Your task to perform on an android device: see tabs open on other devices in the chrome app Image 0: 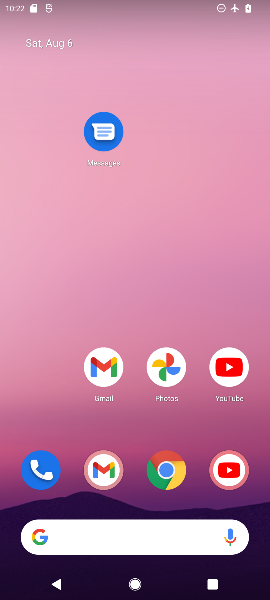
Step 0: drag from (185, 496) to (131, 242)
Your task to perform on an android device: see tabs open on other devices in the chrome app Image 1: 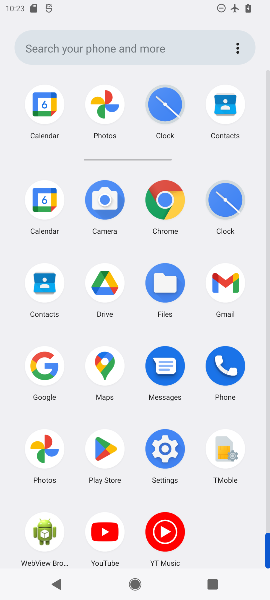
Step 1: click (160, 209)
Your task to perform on an android device: see tabs open on other devices in the chrome app Image 2: 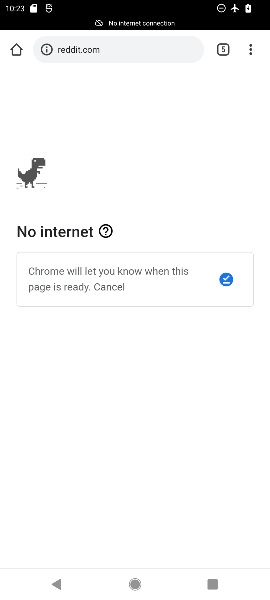
Step 2: task complete